Your task to perform on an android device: Turn off the flashlight Image 0: 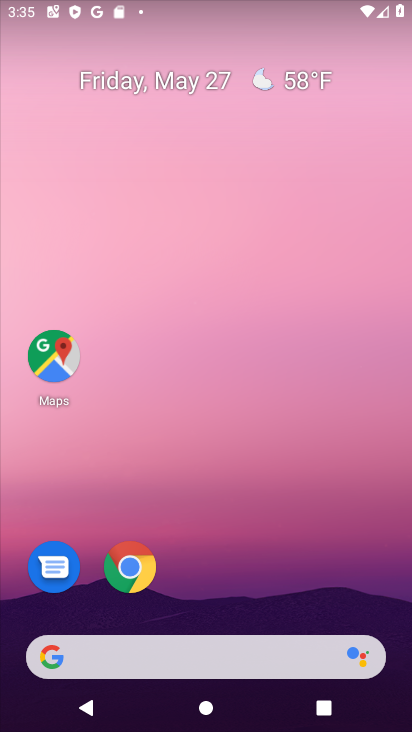
Step 0: press home button
Your task to perform on an android device: Turn off the flashlight Image 1: 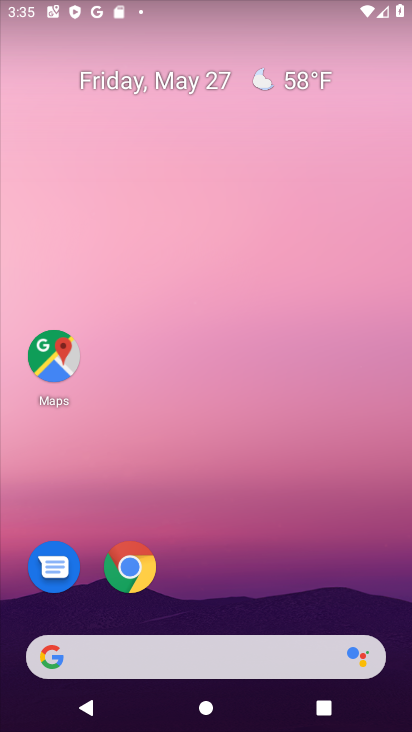
Step 1: drag from (235, 611) to (232, 145)
Your task to perform on an android device: Turn off the flashlight Image 2: 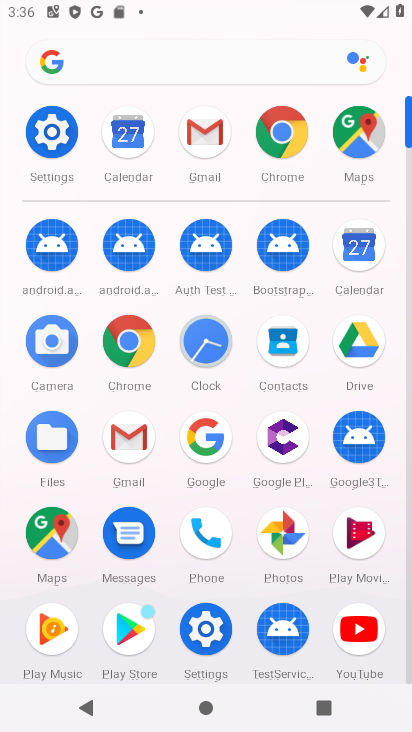
Step 2: click (52, 126)
Your task to perform on an android device: Turn off the flashlight Image 3: 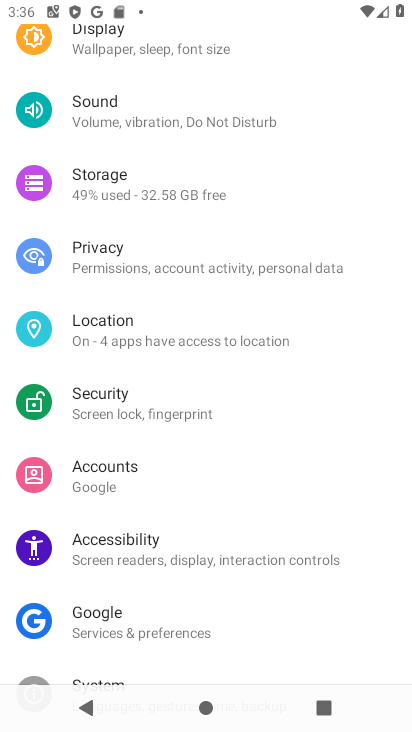
Step 3: drag from (118, 78) to (152, 535)
Your task to perform on an android device: Turn off the flashlight Image 4: 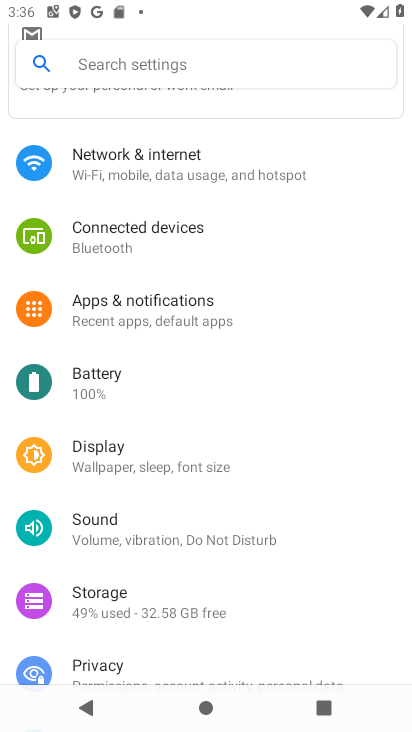
Step 4: click (113, 61)
Your task to perform on an android device: Turn off the flashlight Image 5: 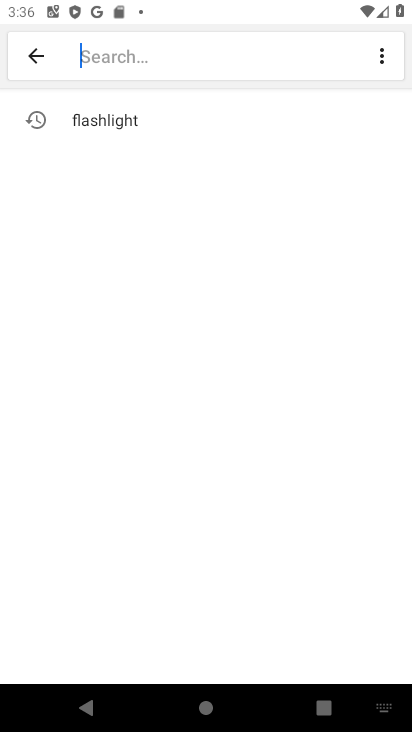
Step 5: click (146, 116)
Your task to perform on an android device: Turn off the flashlight Image 6: 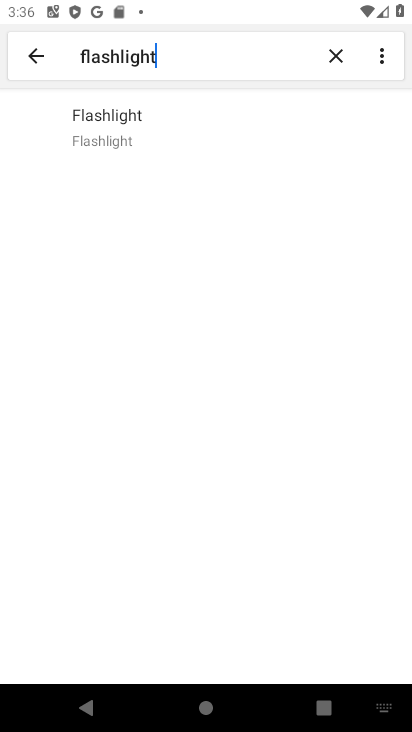
Step 6: click (165, 124)
Your task to perform on an android device: Turn off the flashlight Image 7: 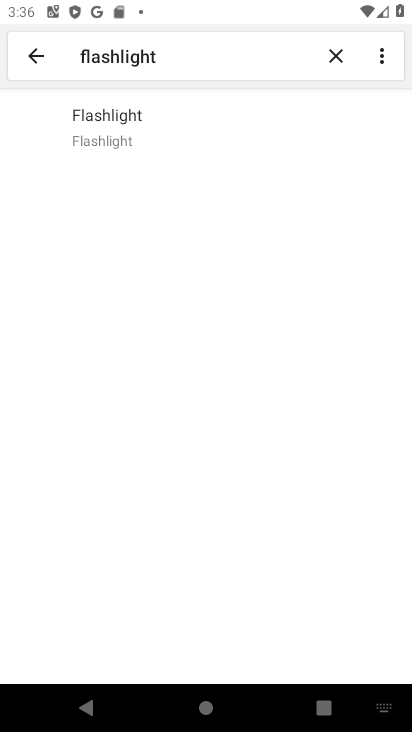
Step 7: task complete